Your task to perform on an android device: turn off wifi Image 0: 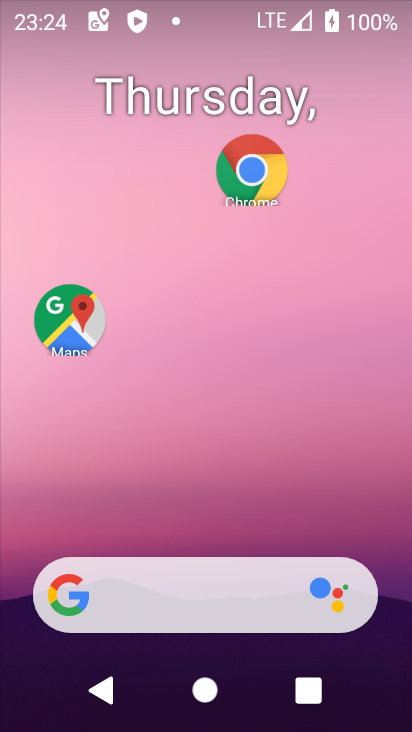
Step 0: drag from (203, 550) to (189, 131)
Your task to perform on an android device: turn off wifi Image 1: 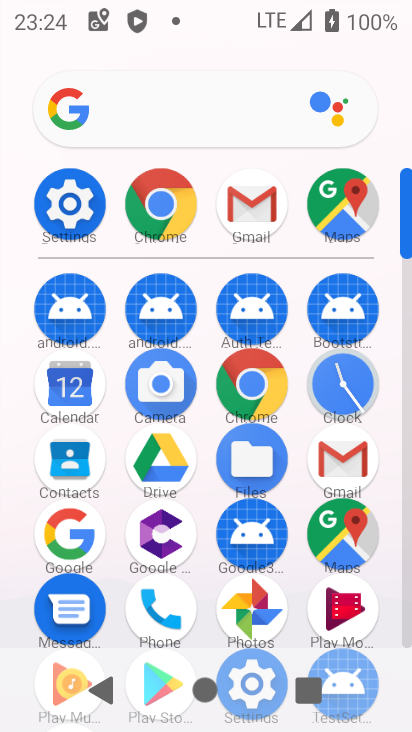
Step 1: click (32, 208)
Your task to perform on an android device: turn off wifi Image 2: 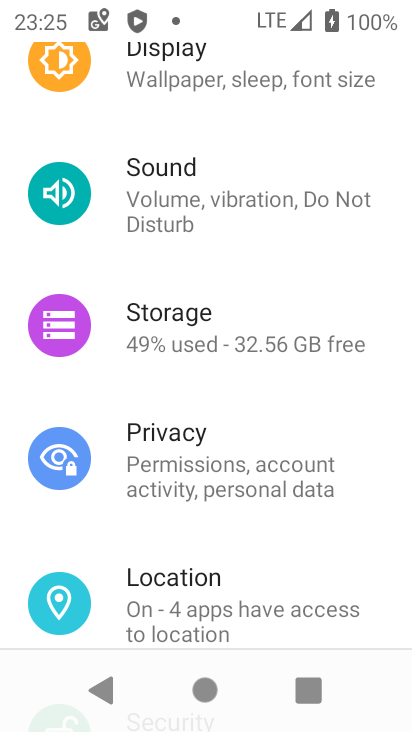
Step 2: drag from (247, 213) to (237, 557)
Your task to perform on an android device: turn off wifi Image 3: 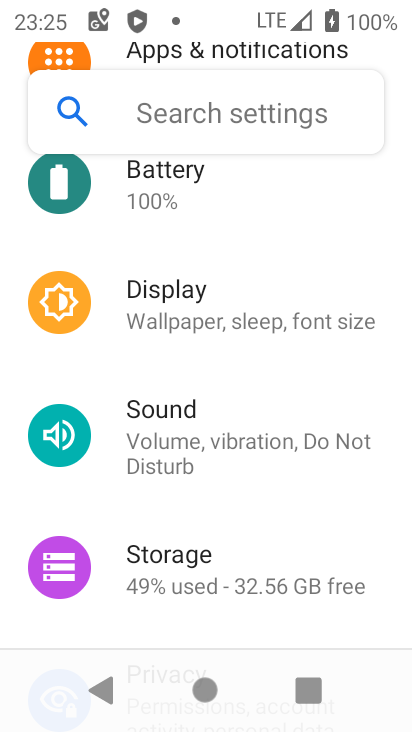
Step 3: click (252, 375)
Your task to perform on an android device: turn off wifi Image 4: 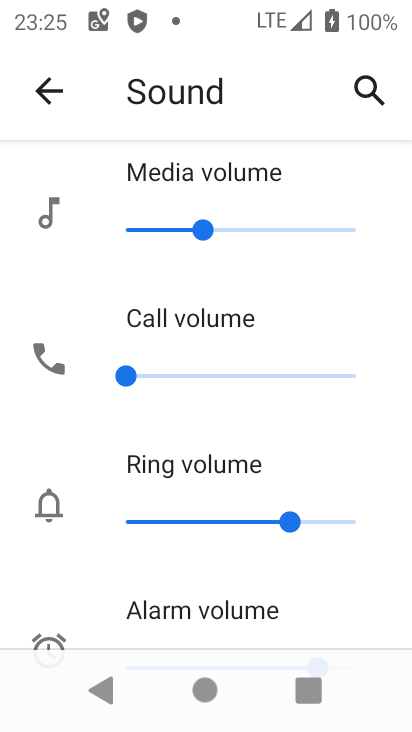
Step 4: drag from (256, 331) to (280, 431)
Your task to perform on an android device: turn off wifi Image 5: 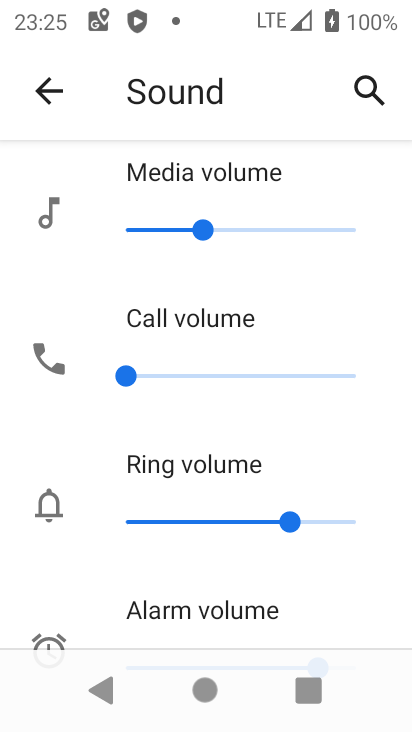
Step 5: drag from (233, 181) to (243, 635)
Your task to perform on an android device: turn off wifi Image 6: 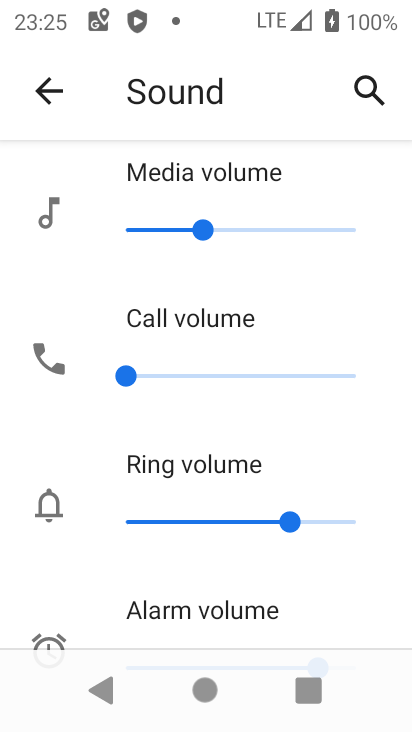
Step 6: drag from (231, 434) to (250, 172)
Your task to perform on an android device: turn off wifi Image 7: 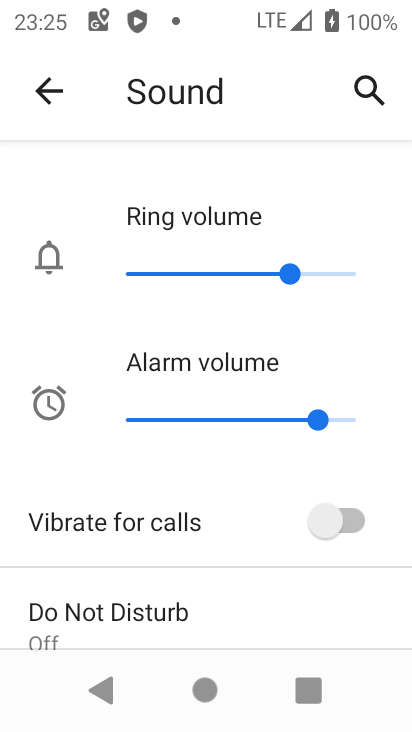
Step 7: click (47, 92)
Your task to perform on an android device: turn off wifi Image 8: 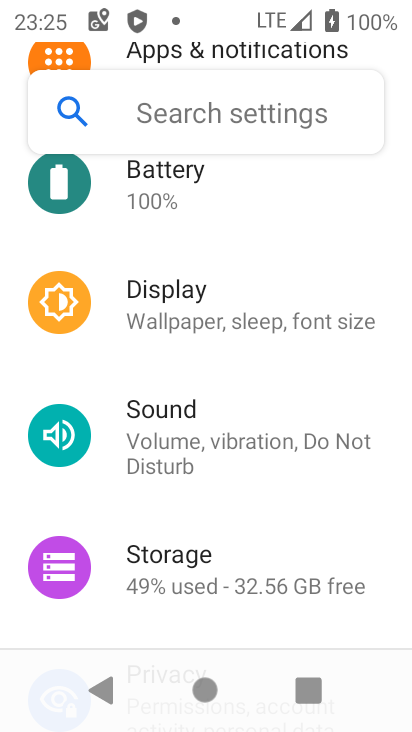
Step 8: drag from (274, 197) to (286, 494)
Your task to perform on an android device: turn off wifi Image 9: 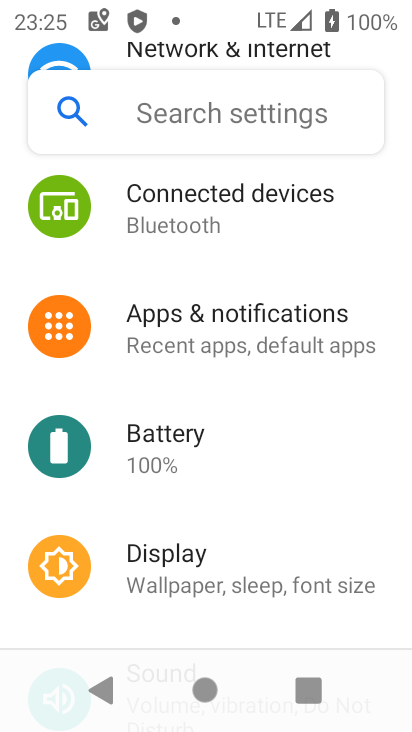
Step 9: drag from (214, 195) to (228, 516)
Your task to perform on an android device: turn off wifi Image 10: 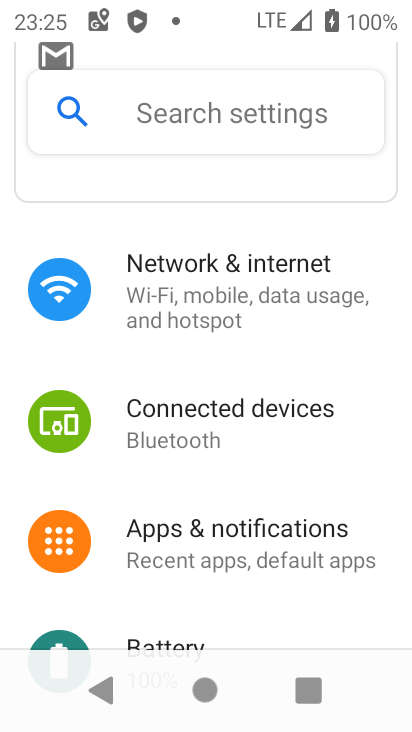
Step 10: click (184, 283)
Your task to perform on an android device: turn off wifi Image 11: 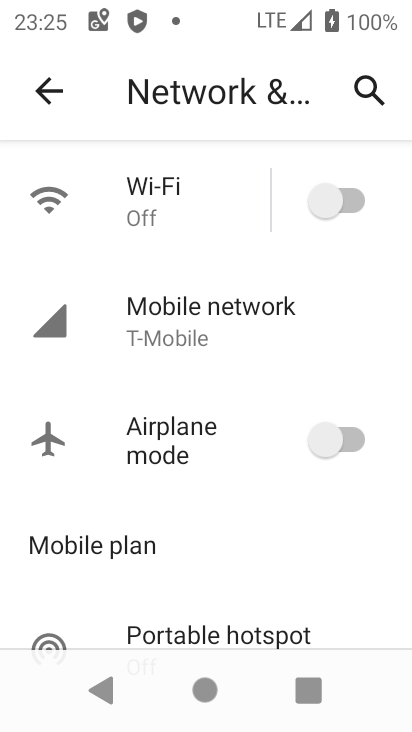
Step 11: task complete